Your task to perform on an android device: Open eBay Image 0: 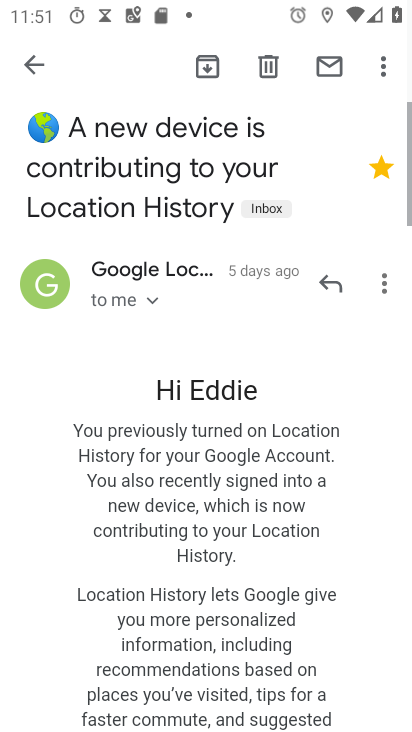
Step 0: press home button
Your task to perform on an android device: Open eBay Image 1: 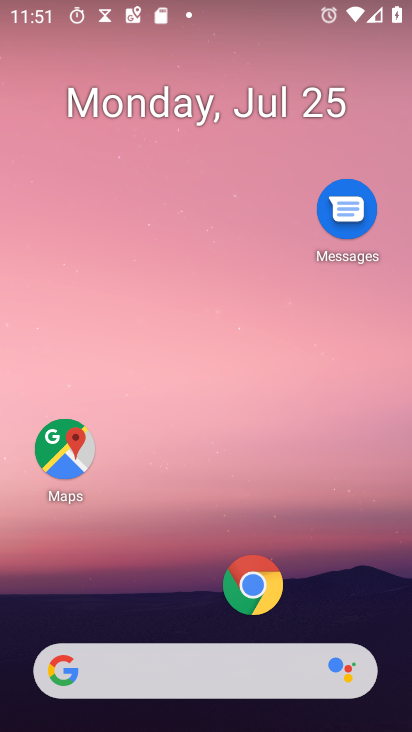
Step 1: click (249, 588)
Your task to perform on an android device: Open eBay Image 2: 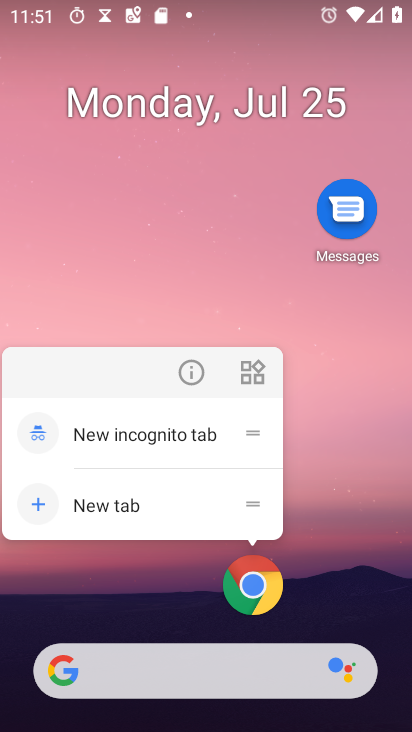
Step 2: click (252, 589)
Your task to perform on an android device: Open eBay Image 3: 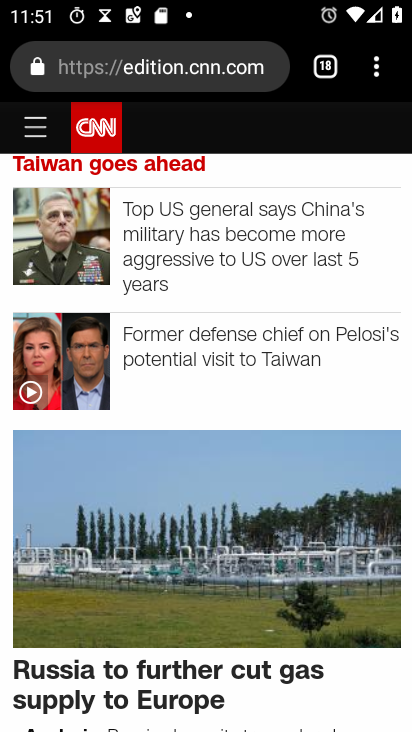
Step 3: drag from (371, 75) to (200, 131)
Your task to perform on an android device: Open eBay Image 4: 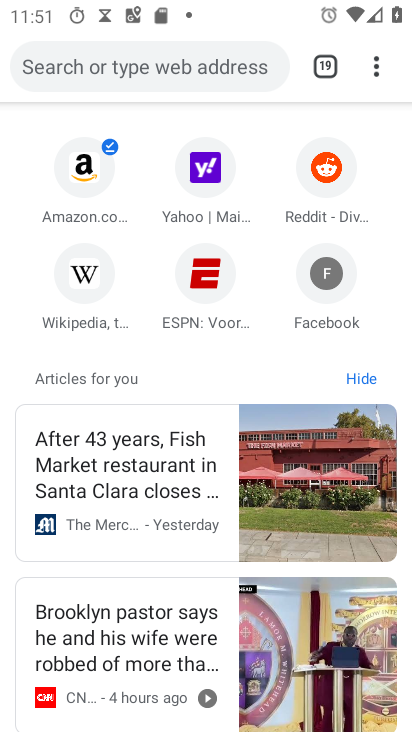
Step 4: click (110, 67)
Your task to perform on an android device: Open eBay Image 5: 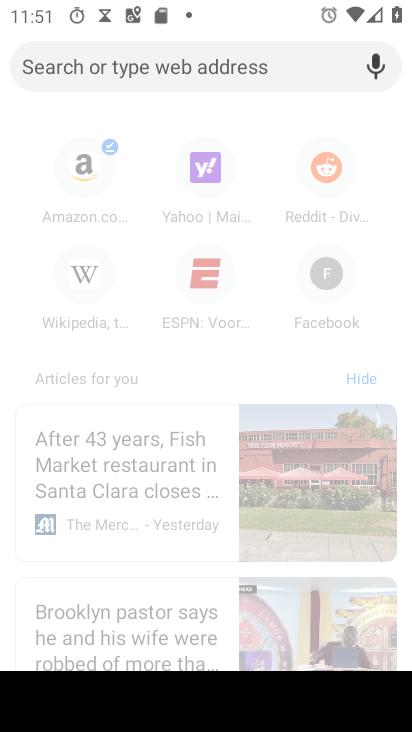
Step 5: type "ebay"
Your task to perform on an android device: Open eBay Image 6: 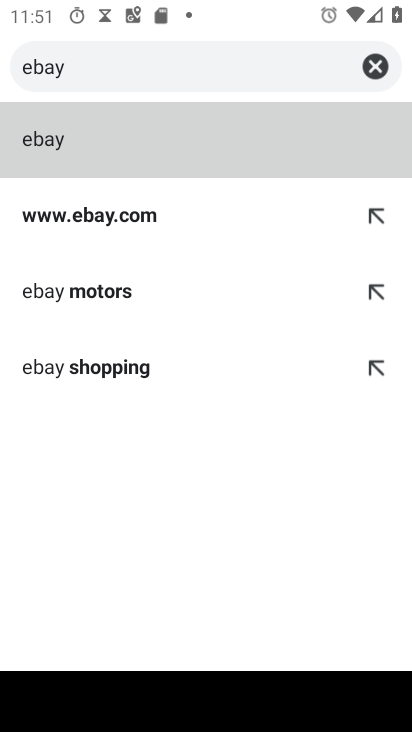
Step 6: click (88, 134)
Your task to perform on an android device: Open eBay Image 7: 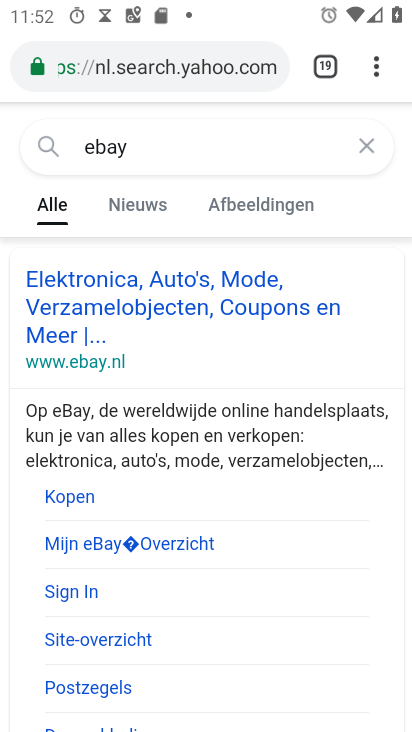
Step 7: click (158, 299)
Your task to perform on an android device: Open eBay Image 8: 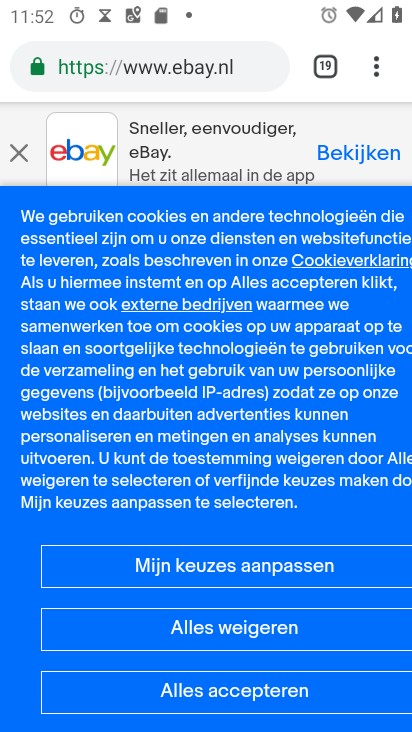
Step 8: click (230, 678)
Your task to perform on an android device: Open eBay Image 9: 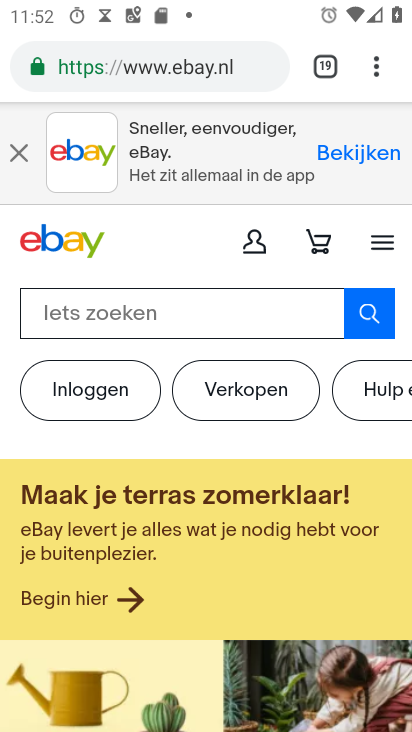
Step 9: task complete